Your task to perform on an android device: Open the phone app and click the voicemail tab. Image 0: 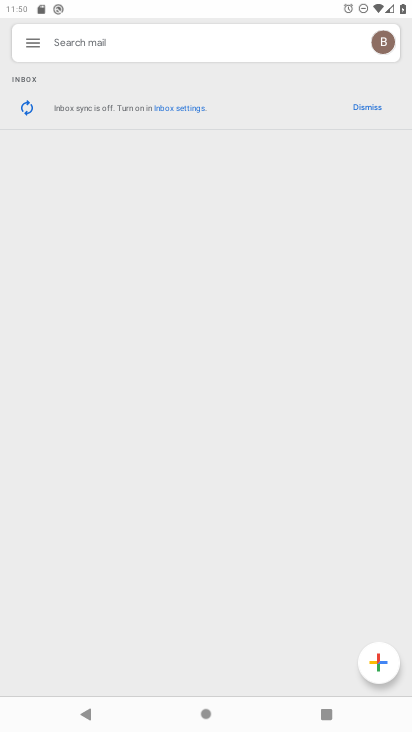
Step 0: press home button
Your task to perform on an android device: Open the phone app and click the voicemail tab. Image 1: 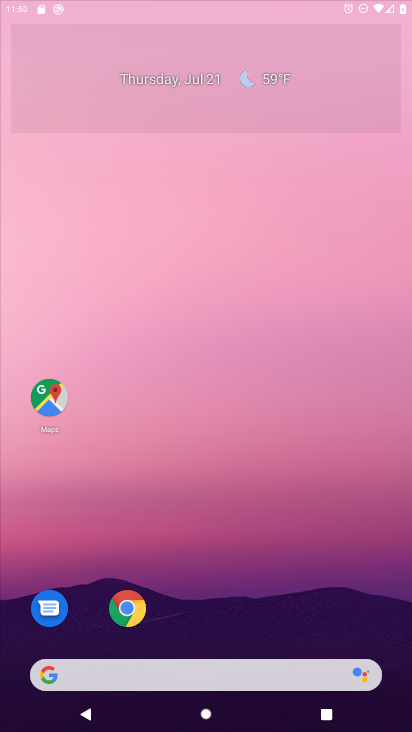
Step 1: drag from (372, 639) to (178, 38)
Your task to perform on an android device: Open the phone app and click the voicemail tab. Image 2: 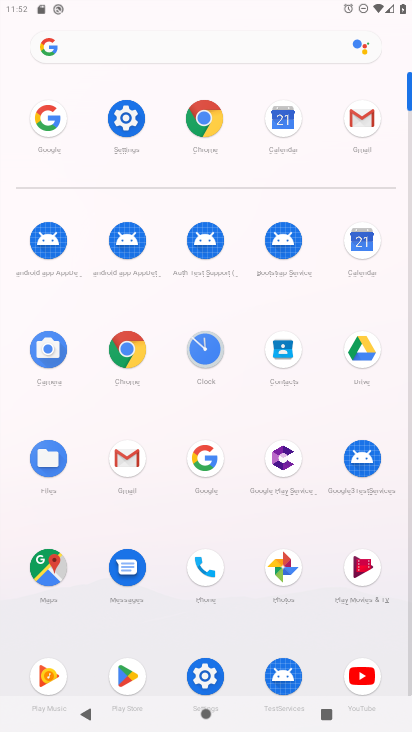
Step 2: click (201, 566)
Your task to perform on an android device: Open the phone app and click the voicemail tab. Image 3: 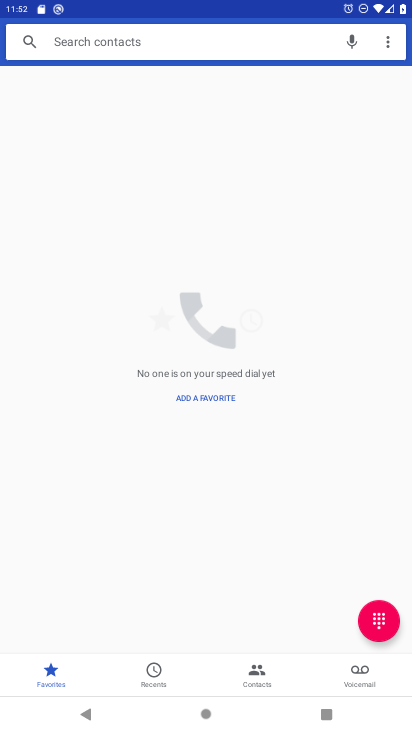
Step 3: click (353, 668)
Your task to perform on an android device: Open the phone app and click the voicemail tab. Image 4: 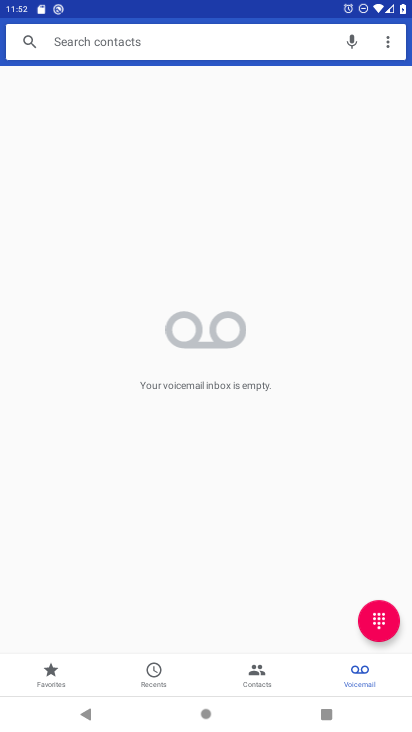
Step 4: task complete